Your task to perform on an android device: Open Reddit.com Image 0: 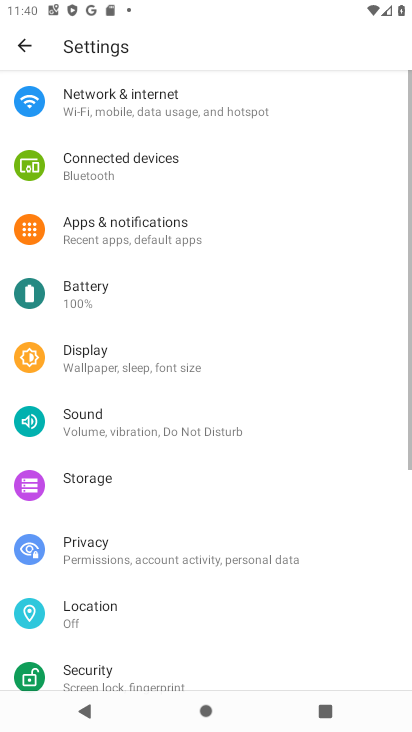
Step 0: press home button
Your task to perform on an android device: Open Reddit.com Image 1: 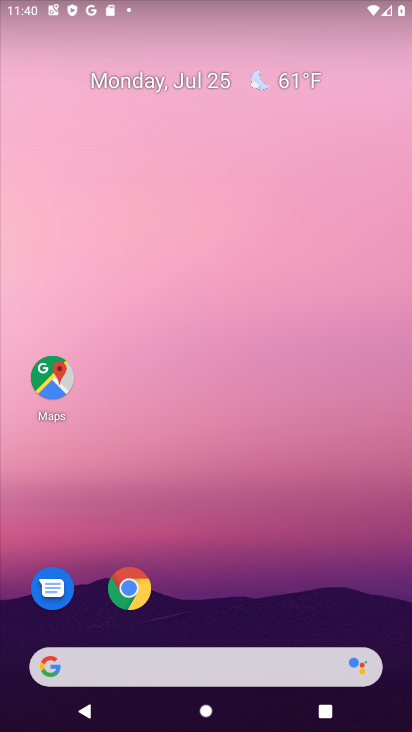
Step 1: click (125, 583)
Your task to perform on an android device: Open Reddit.com Image 2: 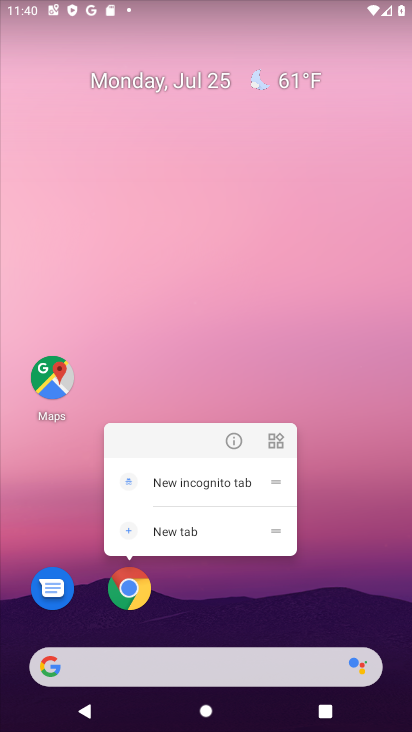
Step 2: click (126, 582)
Your task to perform on an android device: Open Reddit.com Image 3: 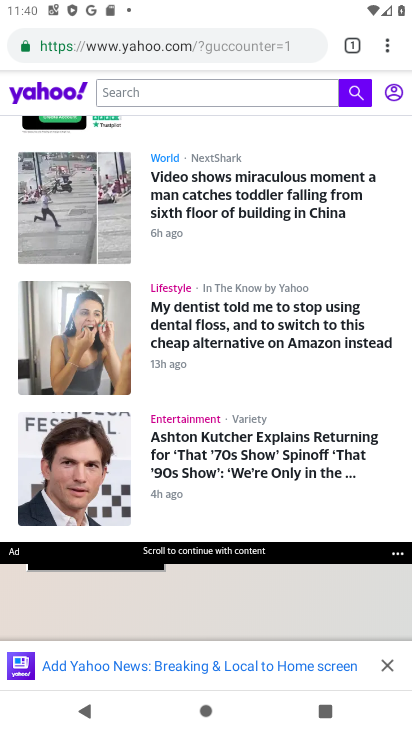
Step 3: click (348, 42)
Your task to perform on an android device: Open Reddit.com Image 4: 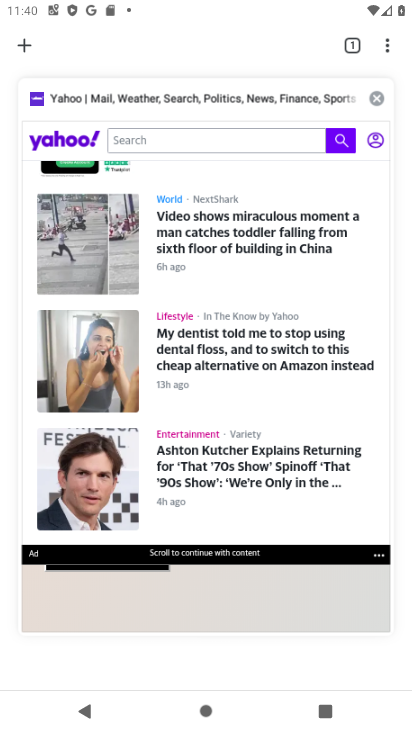
Step 4: click (28, 39)
Your task to perform on an android device: Open Reddit.com Image 5: 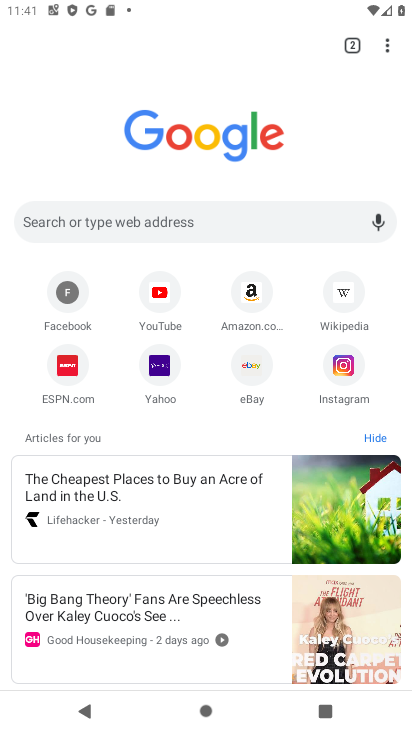
Step 5: click (136, 216)
Your task to perform on an android device: Open Reddit.com Image 6: 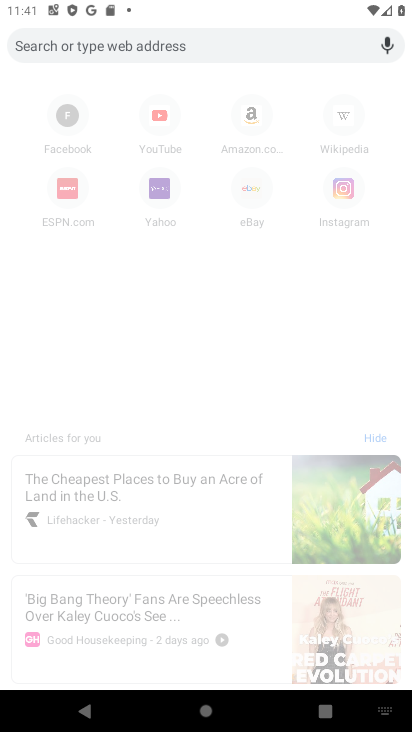
Step 6: type "reddit.com"
Your task to perform on an android device: Open Reddit.com Image 7: 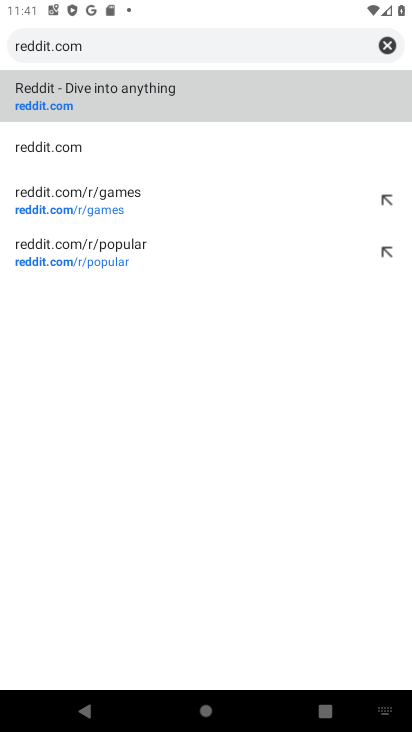
Step 7: click (99, 94)
Your task to perform on an android device: Open Reddit.com Image 8: 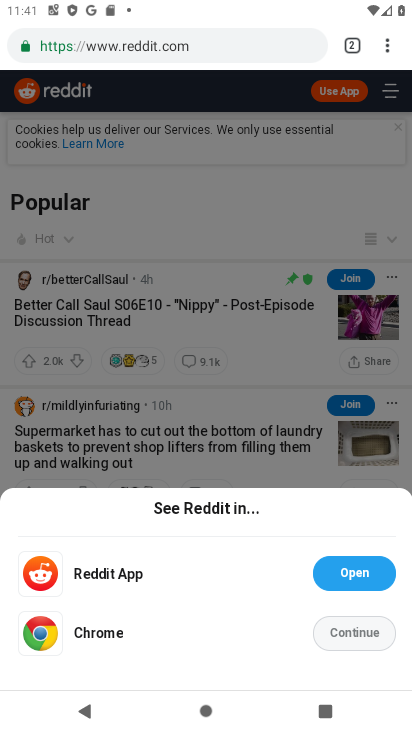
Step 8: click (352, 635)
Your task to perform on an android device: Open Reddit.com Image 9: 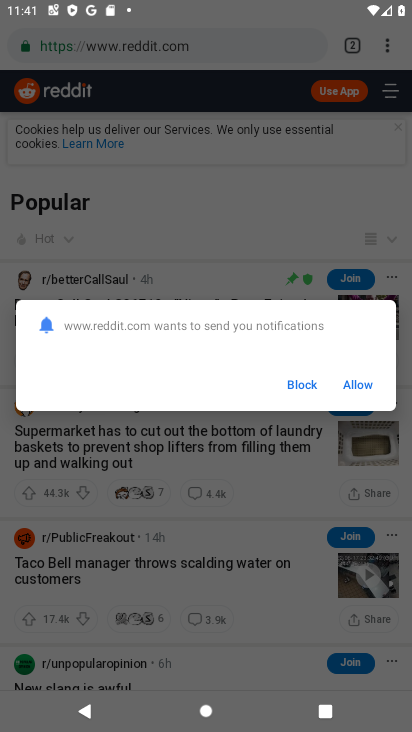
Step 9: click (358, 388)
Your task to perform on an android device: Open Reddit.com Image 10: 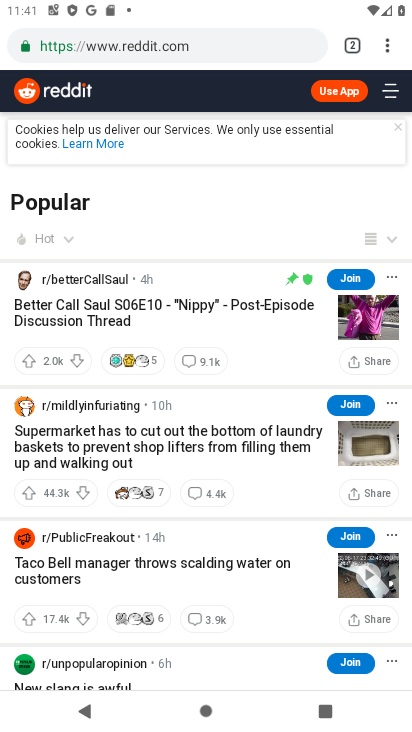
Step 10: task complete